Your task to perform on an android device: Go to sound settings Image 0: 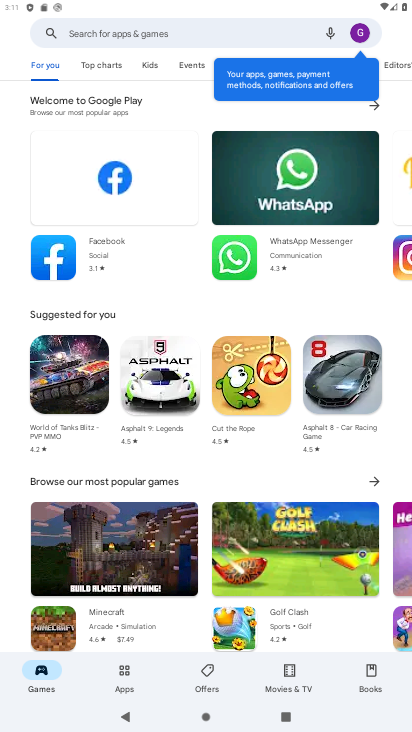
Step 0: press home button
Your task to perform on an android device: Go to sound settings Image 1: 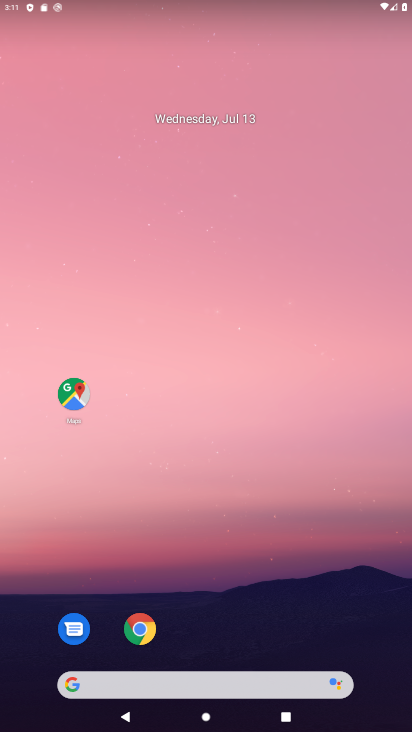
Step 1: drag from (215, 652) to (251, 0)
Your task to perform on an android device: Go to sound settings Image 2: 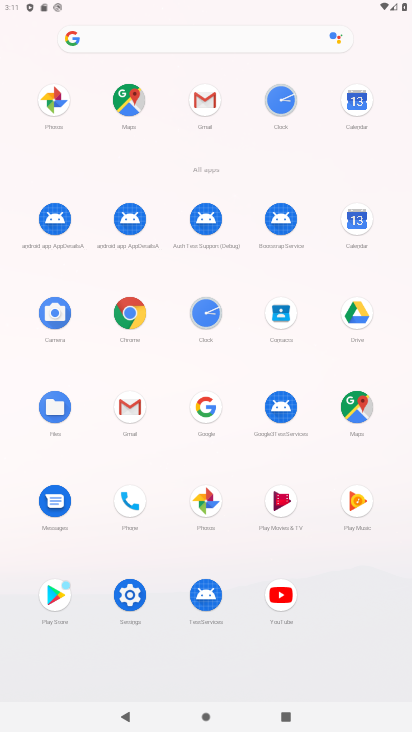
Step 2: click (126, 592)
Your task to perform on an android device: Go to sound settings Image 3: 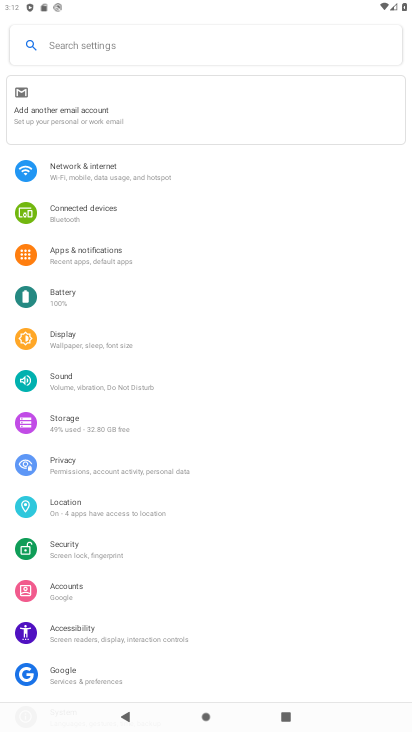
Step 3: click (84, 378)
Your task to perform on an android device: Go to sound settings Image 4: 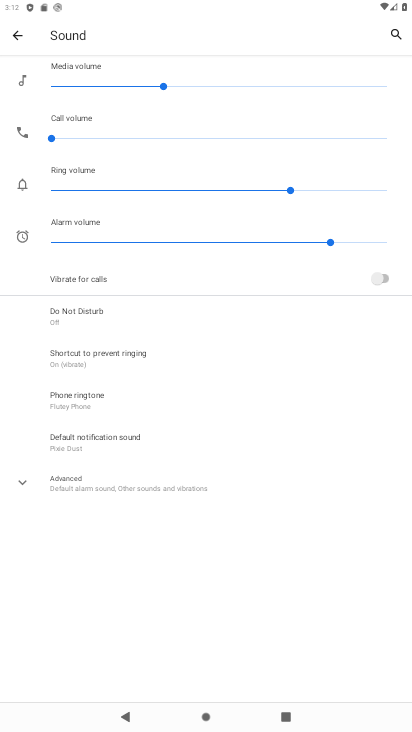
Step 4: click (63, 476)
Your task to perform on an android device: Go to sound settings Image 5: 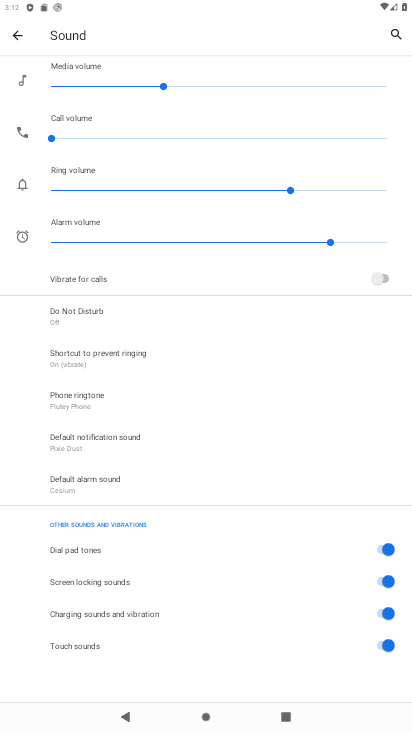
Step 5: task complete